Your task to perform on an android device: Open Yahoo.com Image 0: 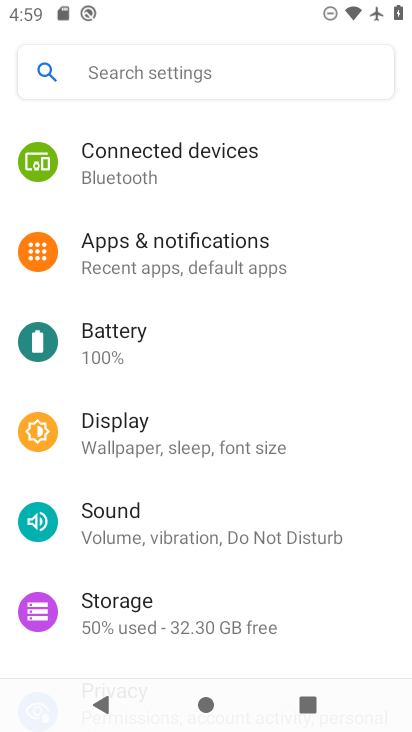
Step 0: drag from (345, 556) to (255, 59)
Your task to perform on an android device: Open Yahoo.com Image 1: 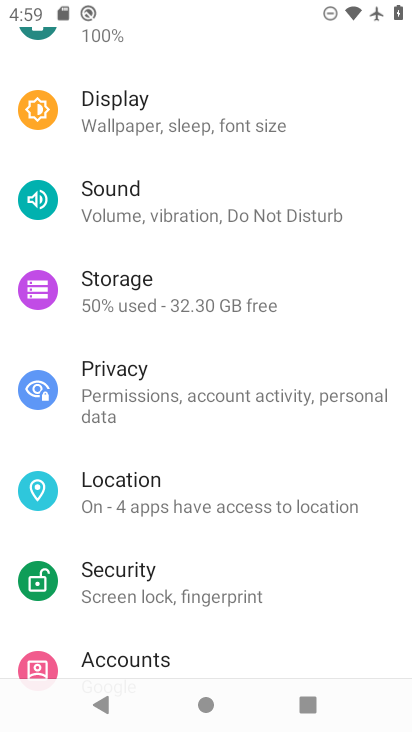
Step 1: press home button
Your task to perform on an android device: Open Yahoo.com Image 2: 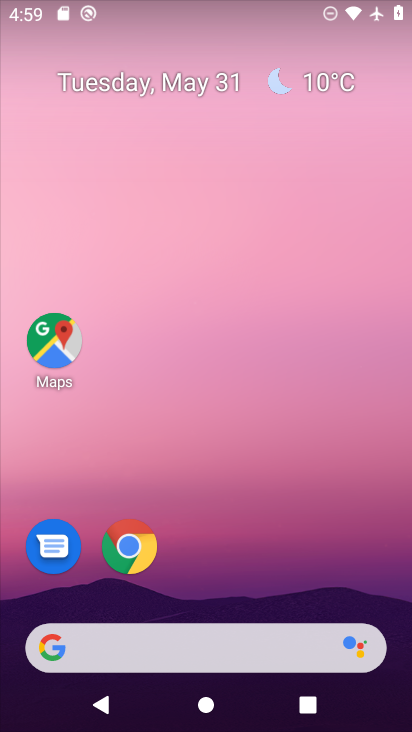
Step 2: click (126, 545)
Your task to perform on an android device: Open Yahoo.com Image 3: 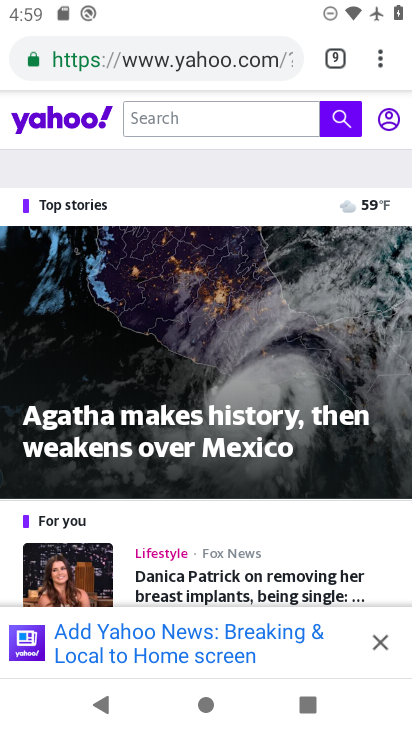
Step 3: task complete